Your task to perform on an android device: Go to battery settings Image 0: 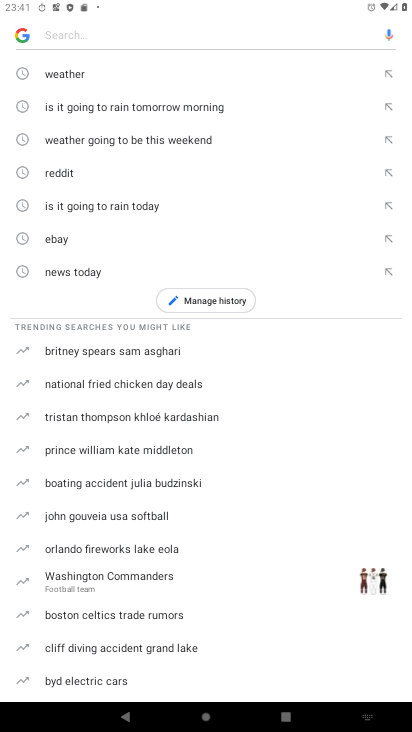
Step 0: press home button
Your task to perform on an android device: Go to battery settings Image 1: 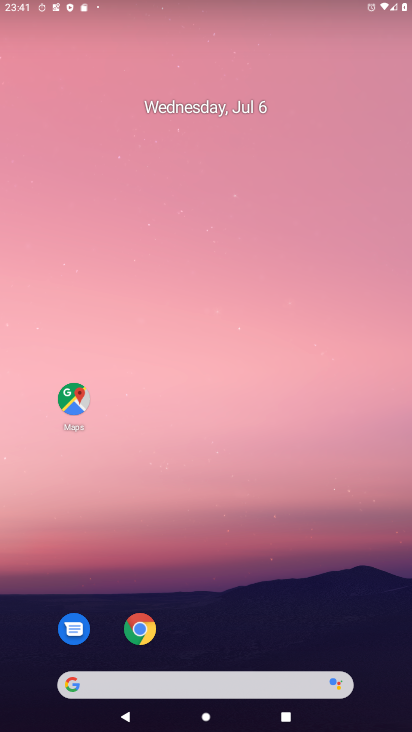
Step 1: drag from (205, 632) to (222, 128)
Your task to perform on an android device: Go to battery settings Image 2: 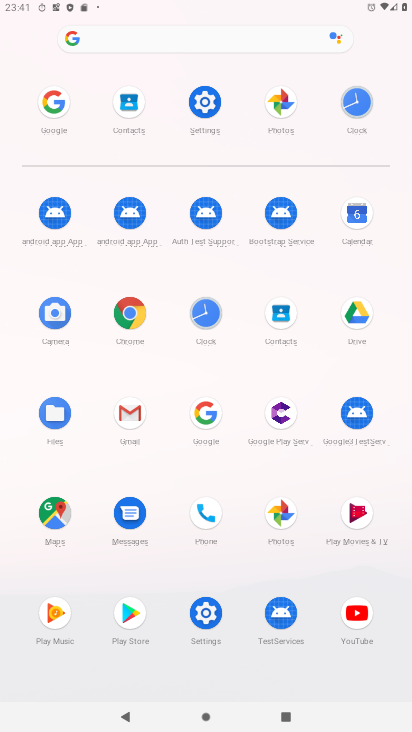
Step 2: click (208, 97)
Your task to perform on an android device: Go to battery settings Image 3: 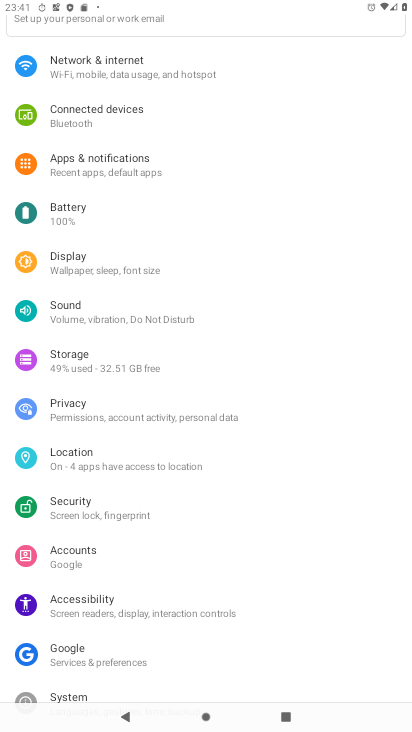
Step 3: click (82, 215)
Your task to perform on an android device: Go to battery settings Image 4: 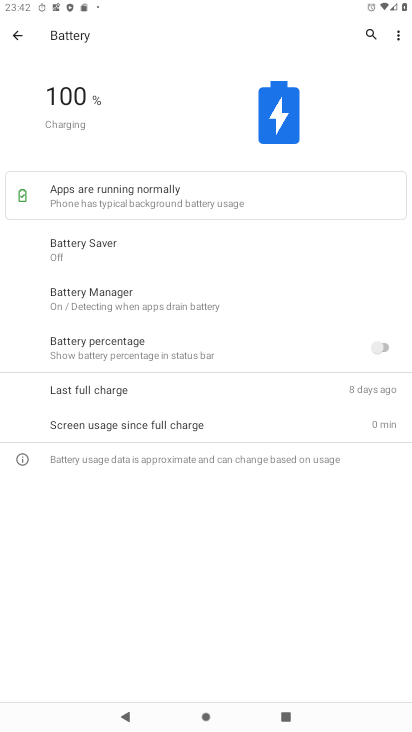
Step 4: task complete